Your task to perform on an android device: What is the news today? Image 0: 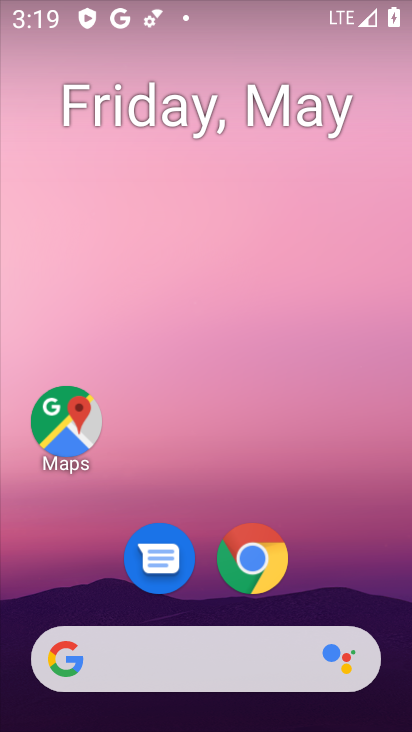
Step 0: press home button
Your task to perform on an android device: What is the news today? Image 1: 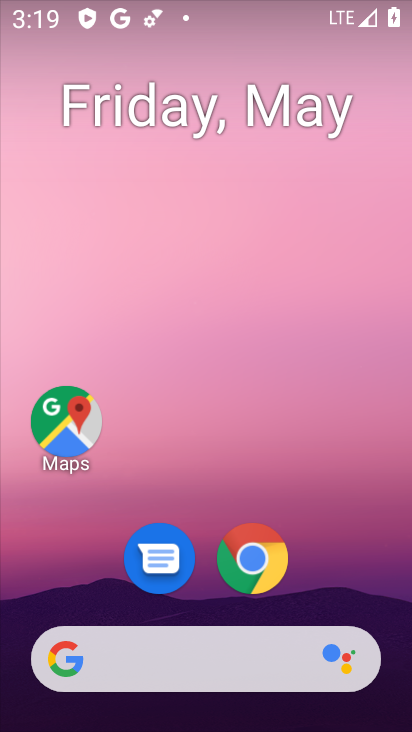
Step 1: click (71, 667)
Your task to perform on an android device: What is the news today? Image 2: 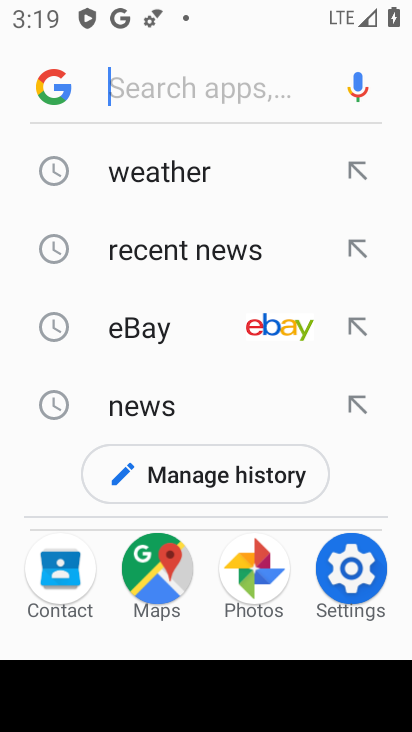
Step 2: click (154, 402)
Your task to perform on an android device: What is the news today? Image 3: 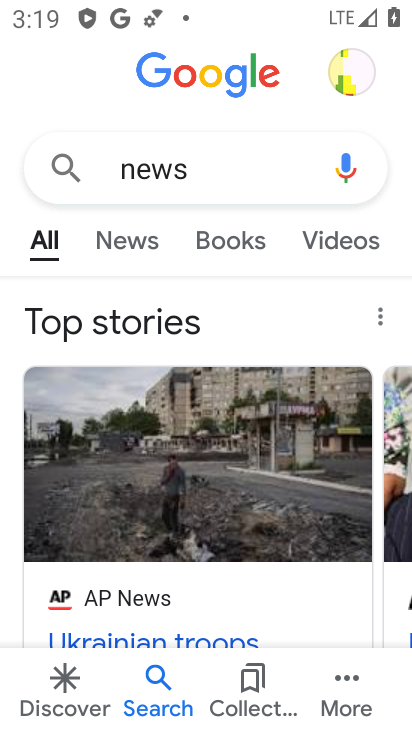
Step 3: click (107, 243)
Your task to perform on an android device: What is the news today? Image 4: 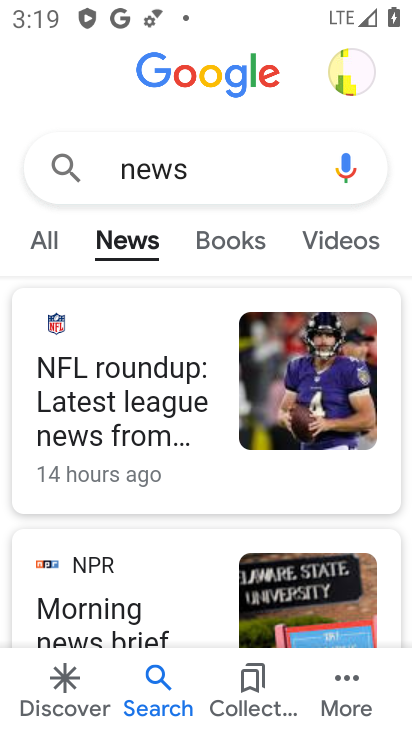
Step 4: task complete